Your task to perform on an android device: find which apps use the phone's location Image 0: 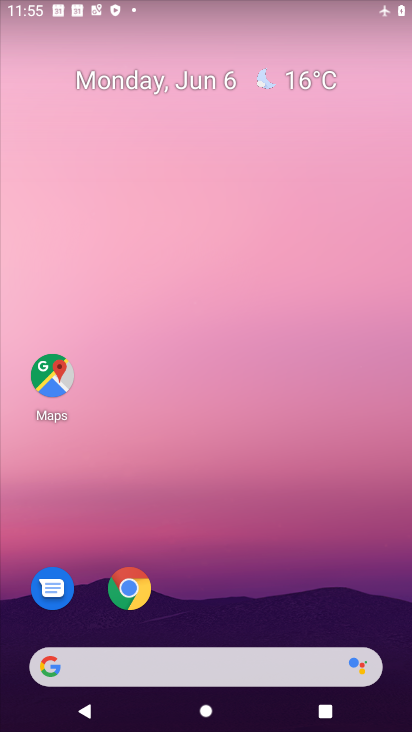
Step 0: drag from (217, 629) to (270, 50)
Your task to perform on an android device: find which apps use the phone's location Image 1: 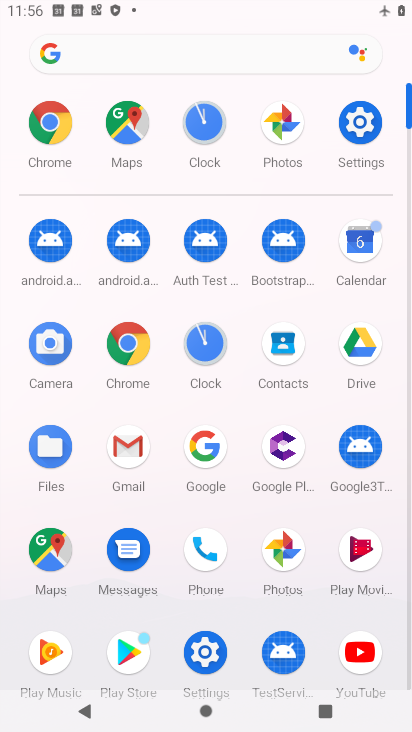
Step 1: click (360, 113)
Your task to perform on an android device: find which apps use the phone's location Image 2: 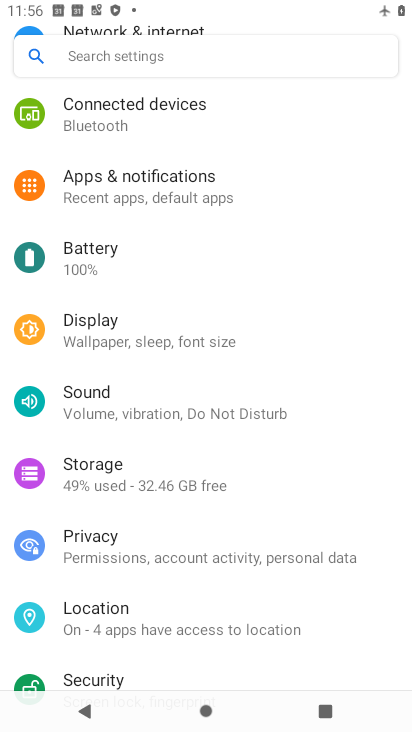
Step 2: click (109, 601)
Your task to perform on an android device: find which apps use the phone's location Image 3: 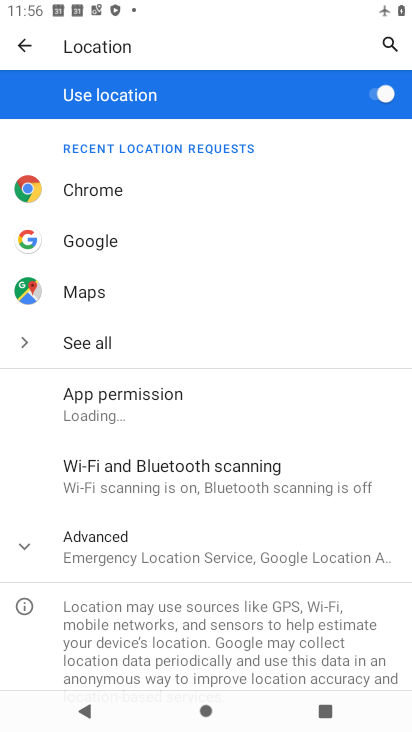
Step 3: click (132, 412)
Your task to perform on an android device: find which apps use the phone's location Image 4: 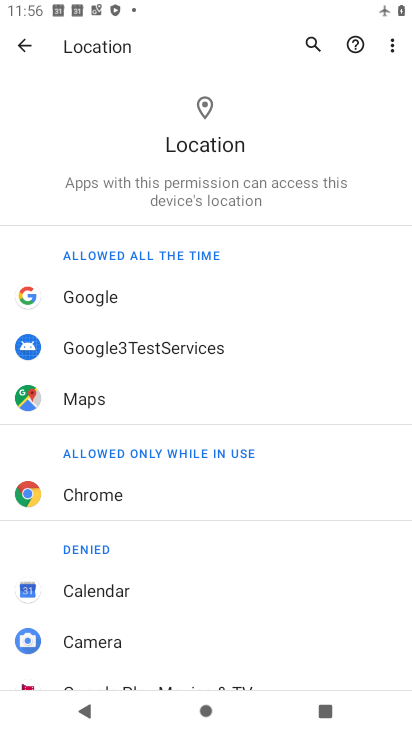
Step 4: task complete